Your task to perform on an android device: turn smart compose on in the gmail app Image 0: 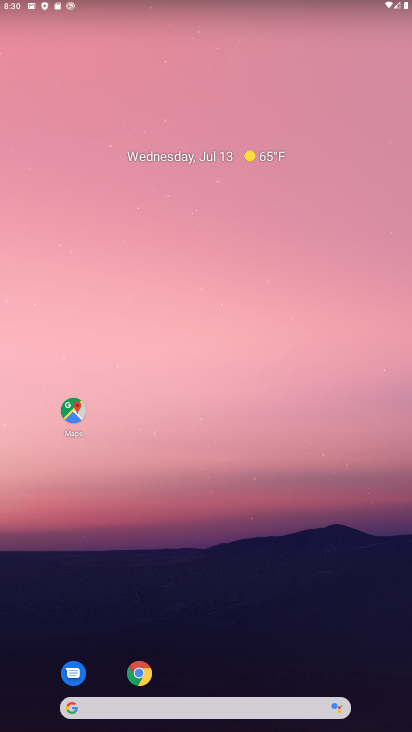
Step 0: drag from (198, 703) to (229, 230)
Your task to perform on an android device: turn smart compose on in the gmail app Image 1: 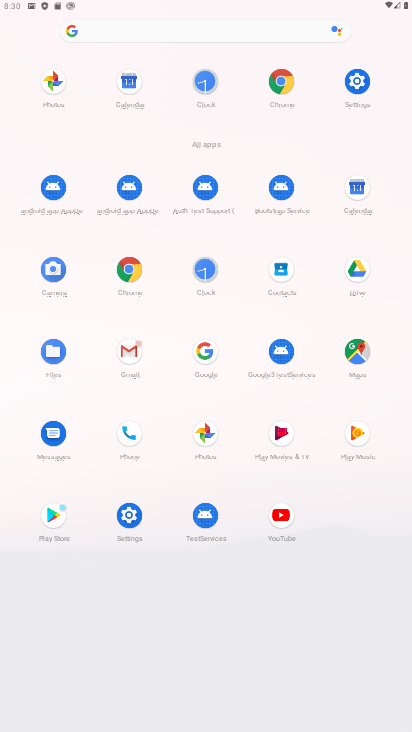
Step 1: click (126, 352)
Your task to perform on an android device: turn smart compose on in the gmail app Image 2: 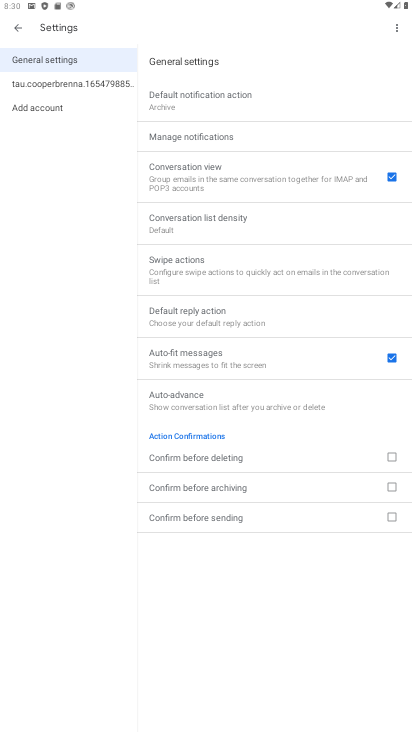
Step 2: click (36, 86)
Your task to perform on an android device: turn smart compose on in the gmail app Image 3: 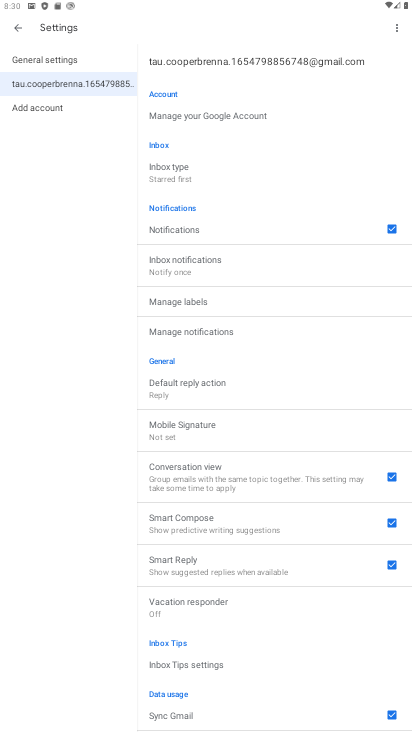
Step 3: task complete